Your task to perform on an android device: Do I have any events tomorrow? Image 0: 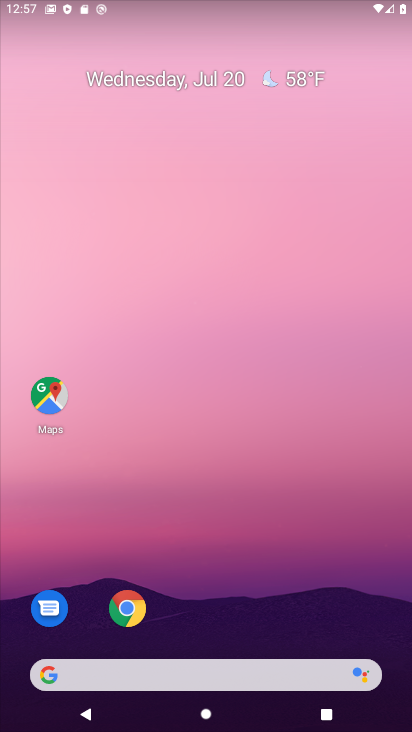
Step 0: drag from (234, 712) to (234, 187)
Your task to perform on an android device: Do I have any events tomorrow? Image 1: 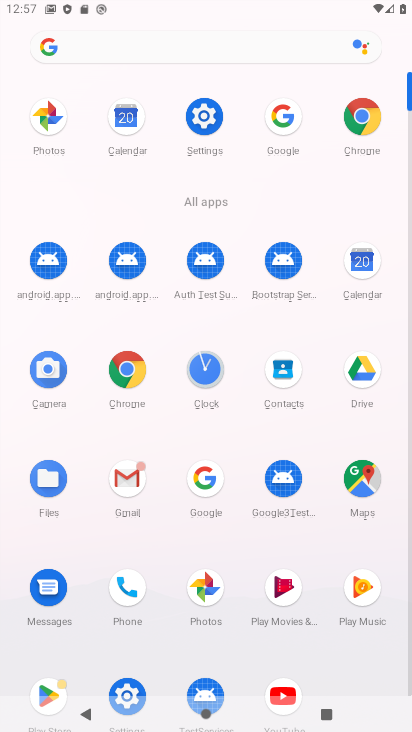
Step 1: click (358, 264)
Your task to perform on an android device: Do I have any events tomorrow? Image 2: 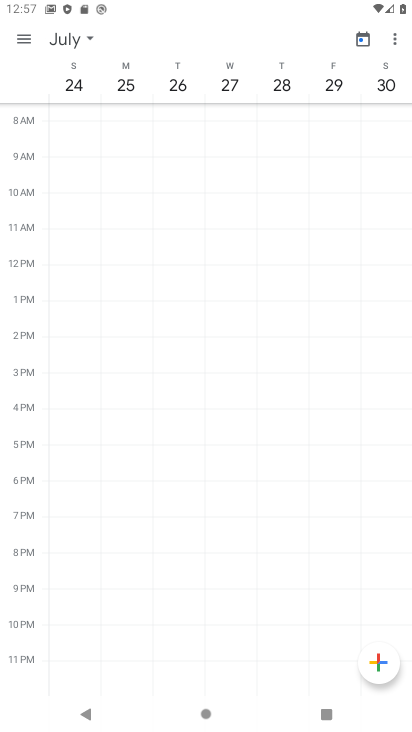
Step 2: click (89, 35)
Your task to perform on an android device: Do I have any events tomorrow? Image 3: 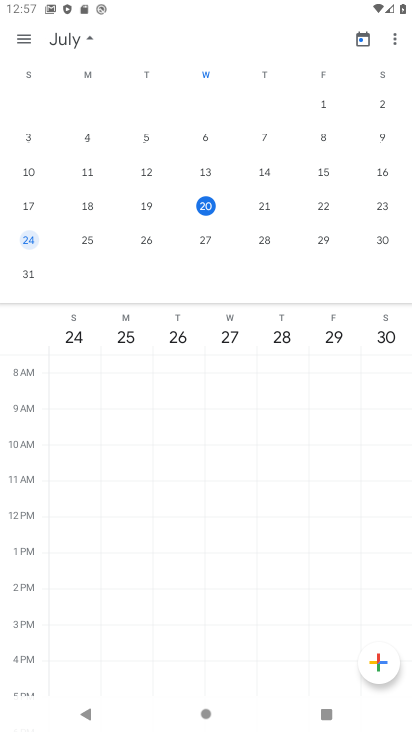
Step 3: click (264, 202)
Your task to perform on an android device: Do I have any events tomorrow? Image 4: 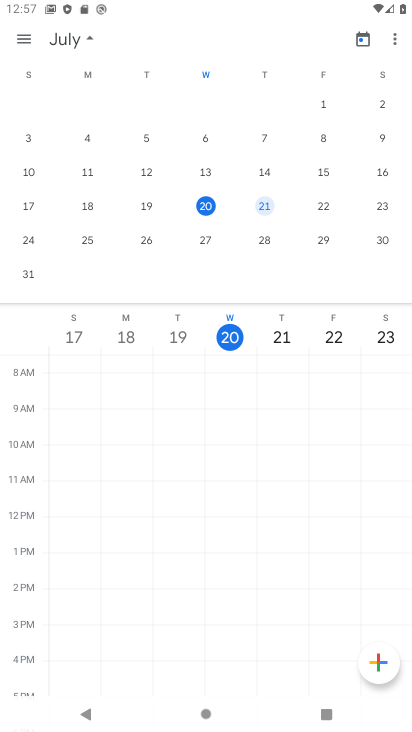
Step 4: click (281, 334)
Your task to perform on an android device: Do I have any events tomorrow? Image 5: 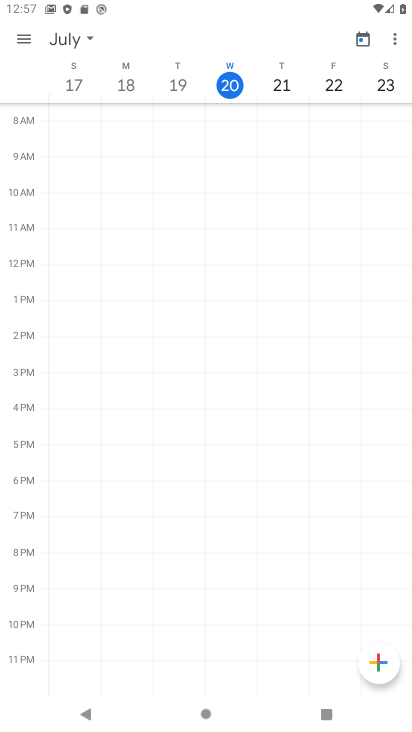
Step 5: task complete